Your task to perform on an android device: Clear the shopping cart on costco. Image 0: 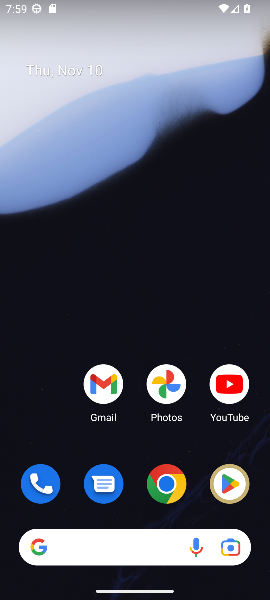
Step 0: click (166, 493)
Your task to perform on an android device: Clear the shopping cart on costco. Image 1: 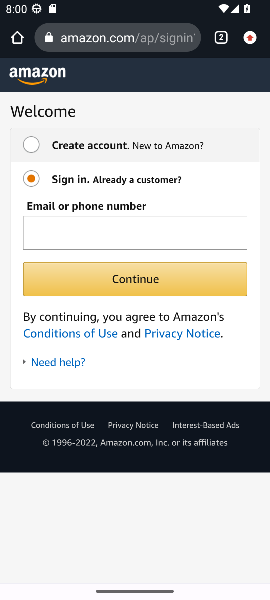
Step 1: click (112, 41)
Your task to perform on an android device: Clear the shopping cart on costco. Image 2: 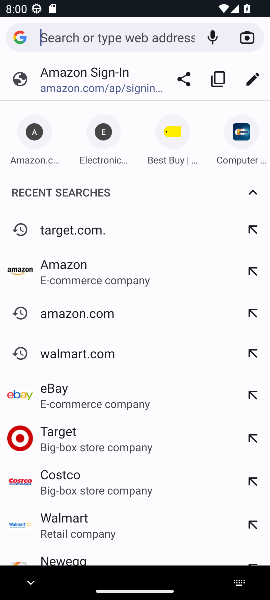
Step 2: type "costco.com"
Your task to perform on an android device: Clear the shopping cart on costco. Image 3: 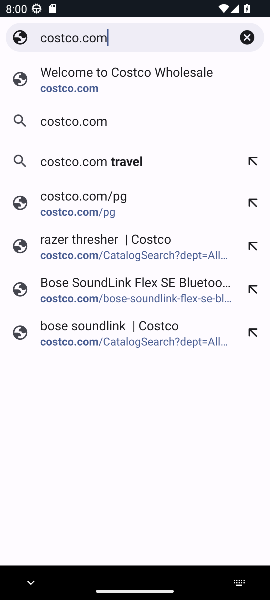
Step 3: click (75, 85)
Your task to perform on an android device: Clear the shopping cart on costco. Image 4: 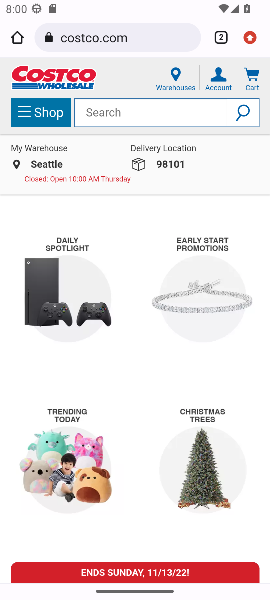
Step 4: click (254, 90)
Your task to perform on an android device: Clear the shopping cart on costco. Image 5: 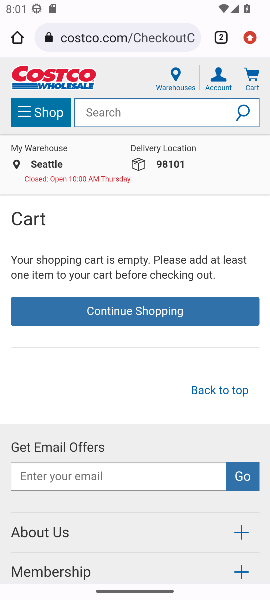
Step 5: task complete